Your task to perform on an android device: turn on javascript in the chrome app Image 0: 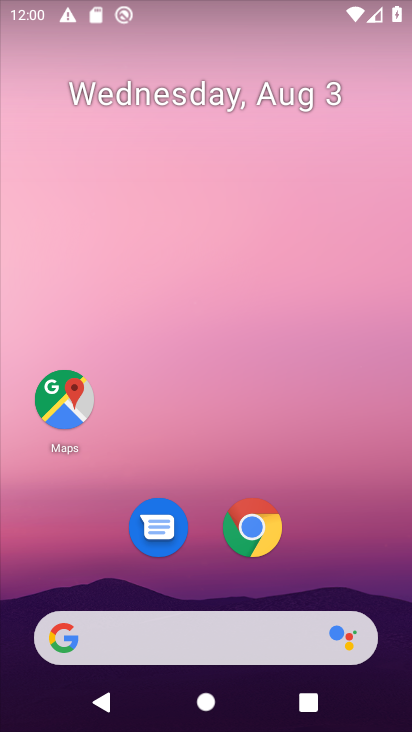
Step 0: click (246, 525)
Your task to perform on an android device: turn on javascript in the chrome app Image 1: 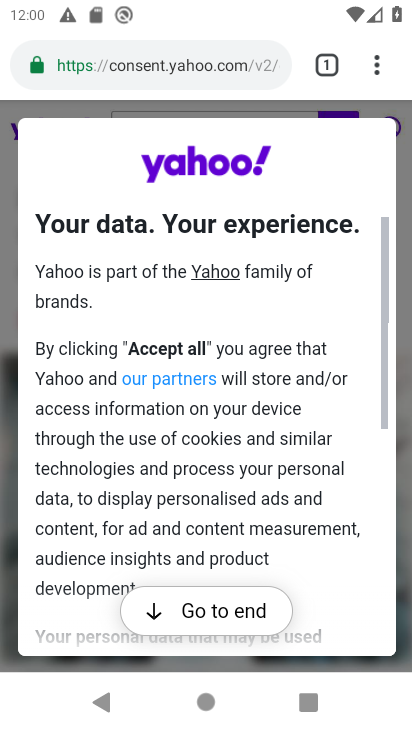
Step 1: click (377, 60)
Your task to perform on an android device: turn on javascript in the chrome app Image 2: 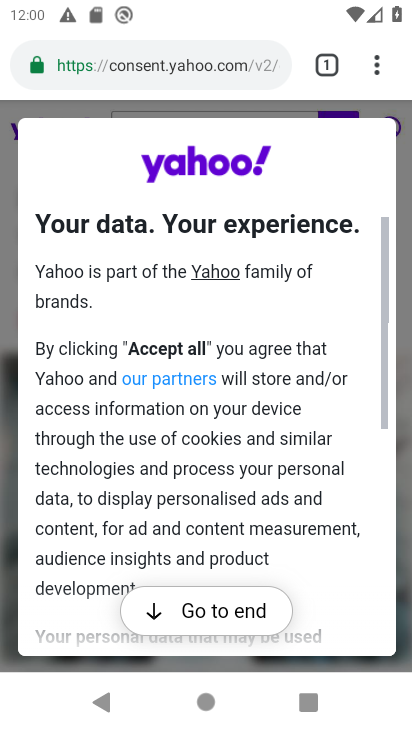
Step 2: click (379, 65)
Your task to perform on an android device: turn on javascript in the chrome app Image 3: 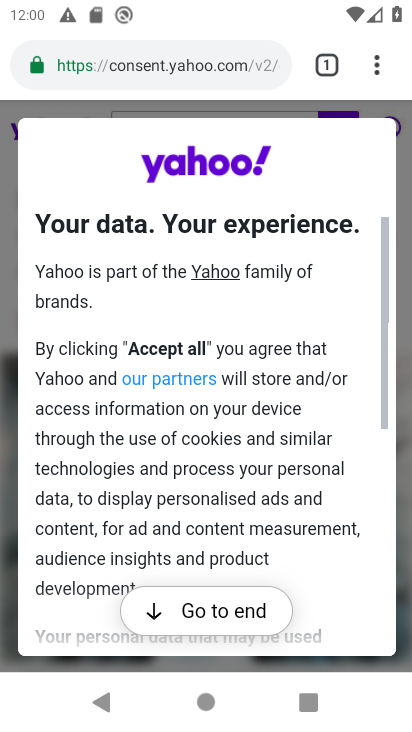
Step 3: click (377, 66)
Your task to perform on an android device: turn on javascript in the chrome app Image 4: 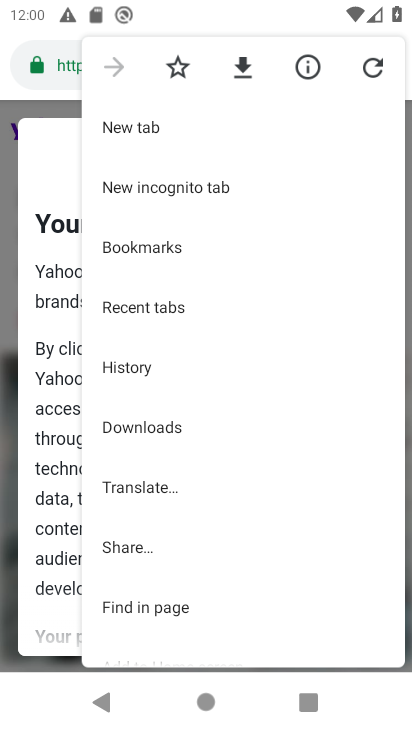
Step 4: drag from (244, 594) to (253, 289)
Your task to perform on an android device: turn on javascript in the chrome app Image 5: 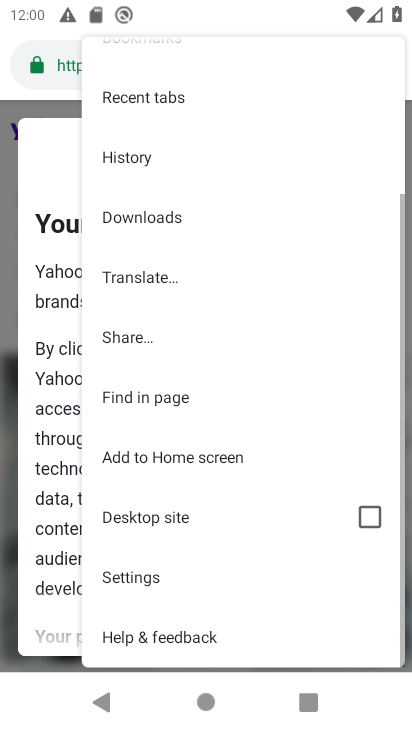
Step 5: click (149, 575)
Your task to perform on an android device: turn on javascript in the chrome app Image 6: 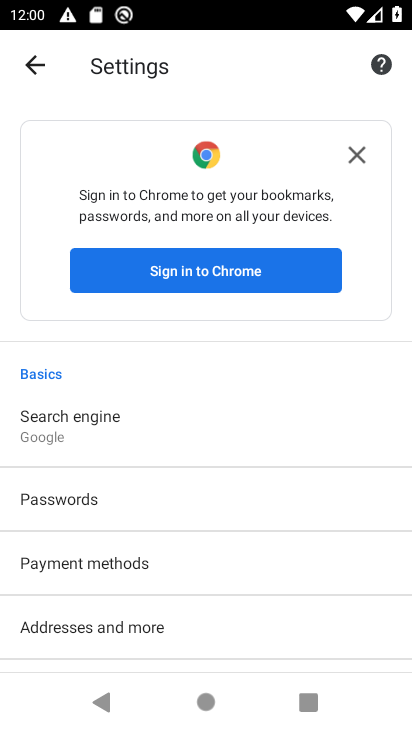
Step 6: drag from (192, 616) to (301, 241)
Your task to perform on an android device: turn on javascript in the chrome app Image 7: 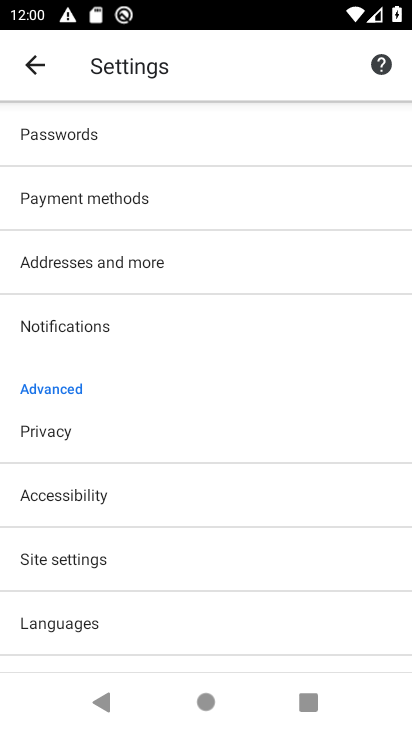
Step 7: click (113, 554)
Your task to perform on an android device: turn on javascript in the chrome app Image 8: 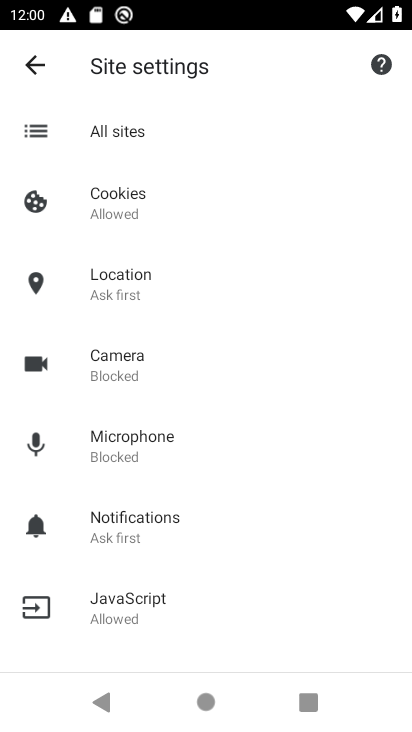
Step 8: click (144, 606)
Your task to perform on an android device: turn on javascript in the chrome app Image 9: 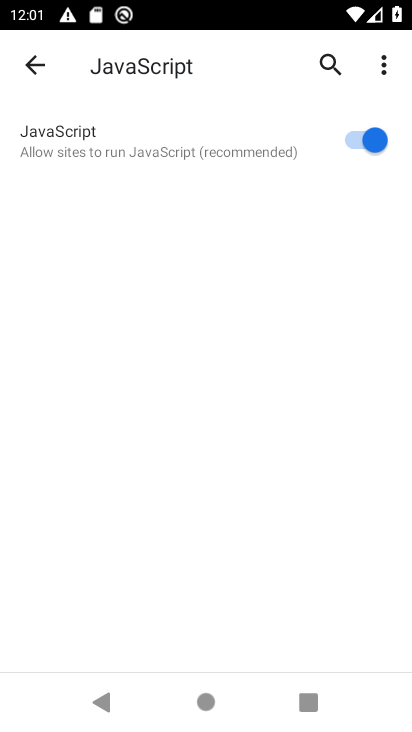
Step 9: task complete